Your task to perform on an android device: toggle wifi Image 0: 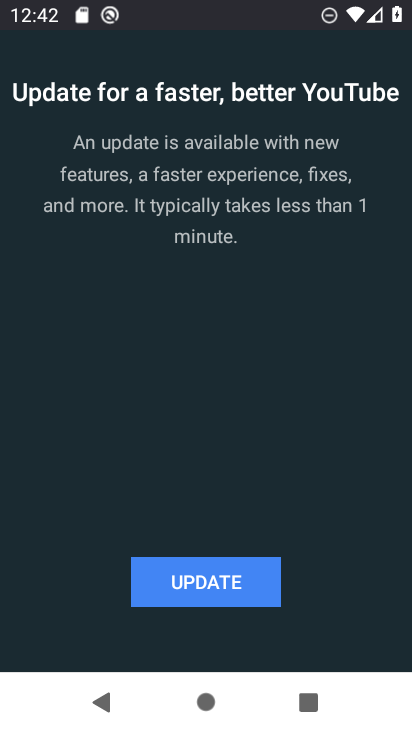
Step 0: press home button
Your task to perform on an android device: toggle wifi Image 1: 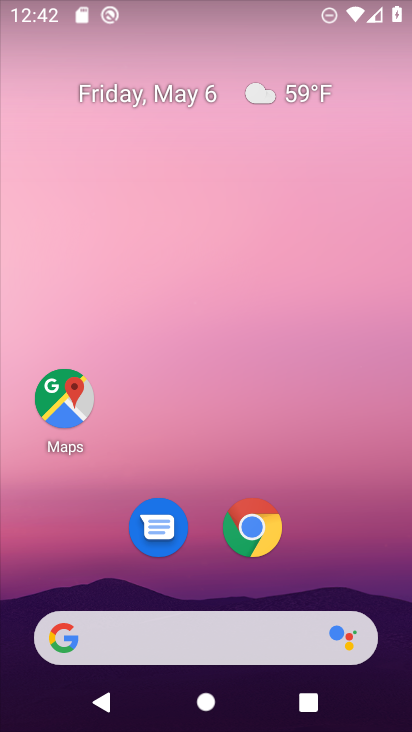
Step 1: drag from (188, 481) to (209, 86)
Your task to perform on an android device: toggle wifi Image 2: 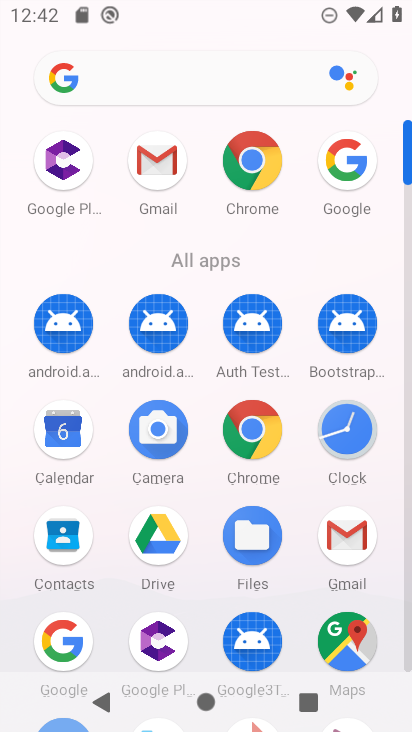
Step 2: drag from (201, 581) to (203, 409)
Your task to perform on an android device: toggle wifi Image 3: 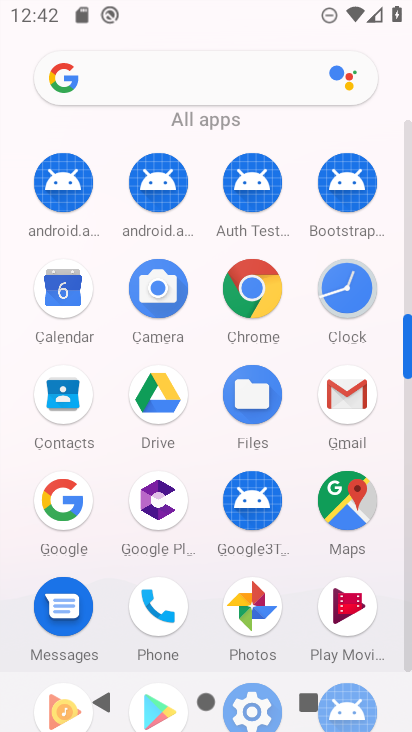
Step 3: drag from (203, 479) to (207, 336)
Your task to perform on an android device: toggle wifi Image 4: 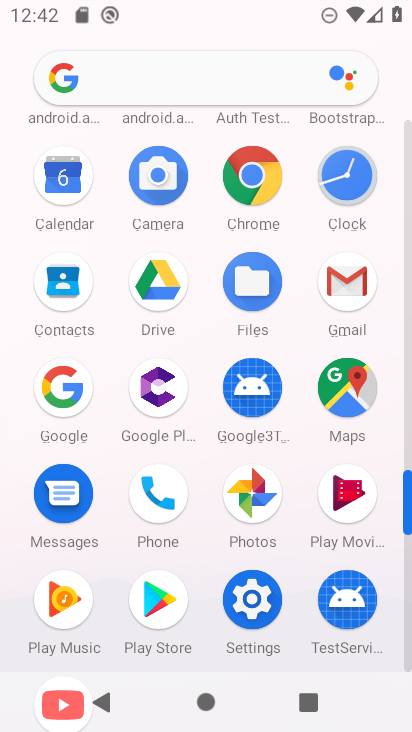
Step 4: click (255, 598)
Your task to perform on an android device: toggle wifi Image 5: 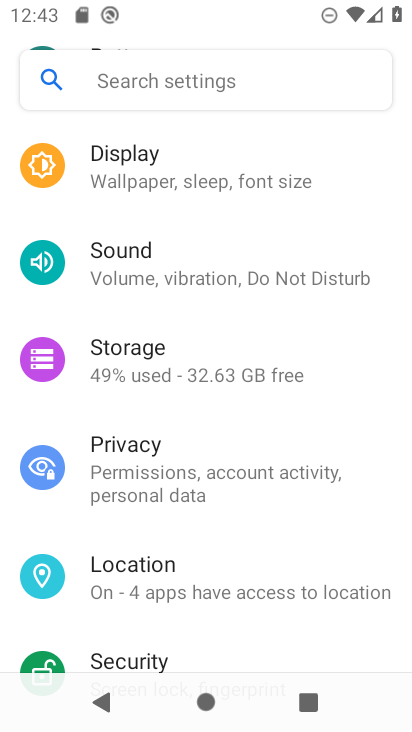
Step 5: drag from (216, 242) to (239, 390)
Your task to perform on an android device: toggle wifi Image 6: 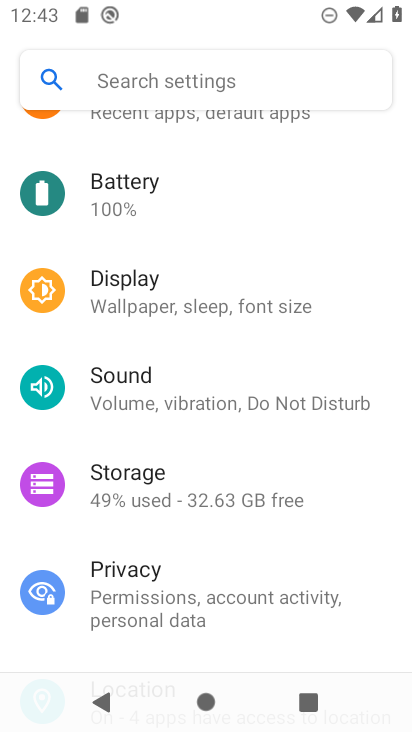
Step 6: drag from (210, 215) to (225, 441)
Your task to perform on an android device: toggle wifi Image 7: 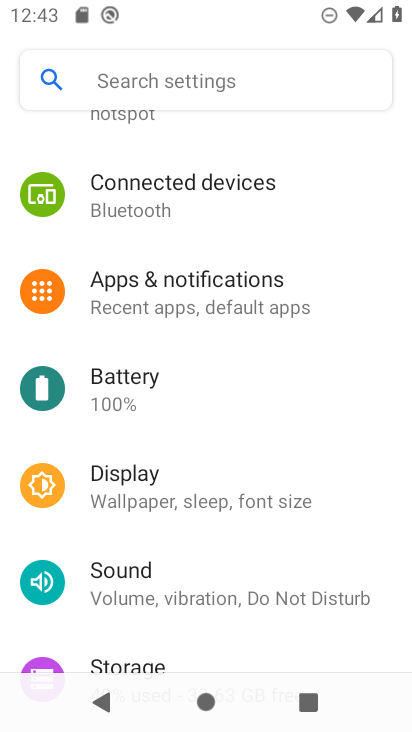
Step 7: drag from (212, 242) to (221, 402)
Your task to perform on an android device: toggle wifi Image 8: 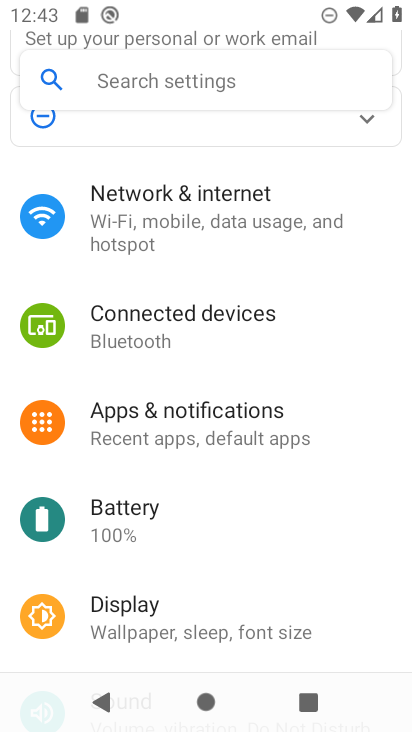
Step 8: click (190, 199)
Your task to perform on an android device: toggle wifi Image 9: 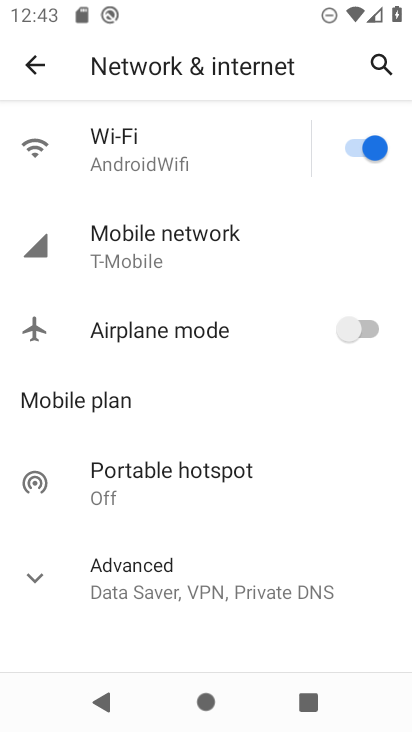
Step 9: click (379, 151)
Your task to perform on an android device: toggle wifi Image 10: 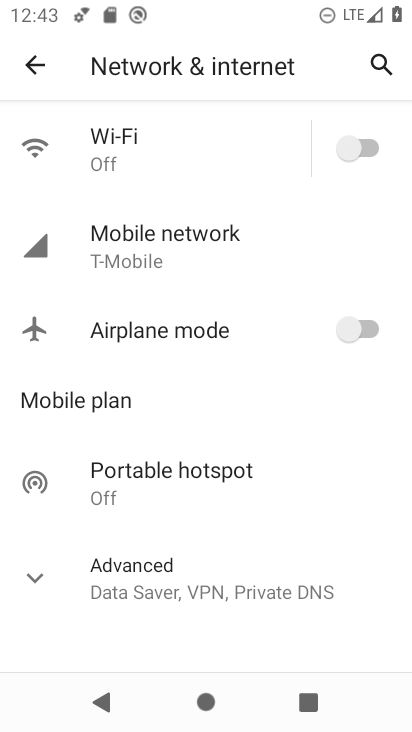
Step 10: task complete